Your task to perform on an android device: turn pop-ups on in chrome Image 0: 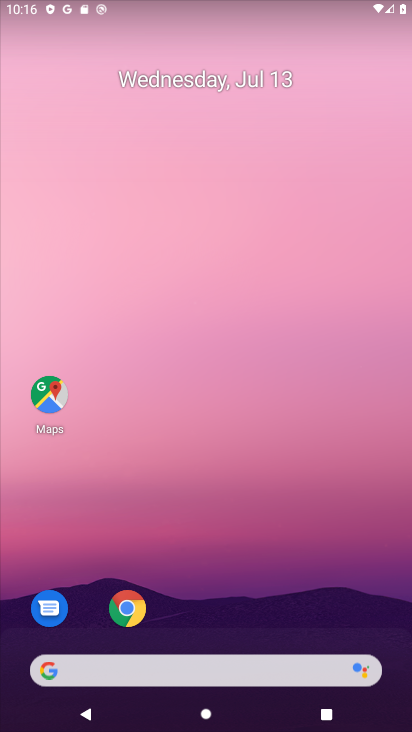
Step 0: click (129, 609)
Your task to perform on an android device: turn pop-ups on in chrome Image 1: 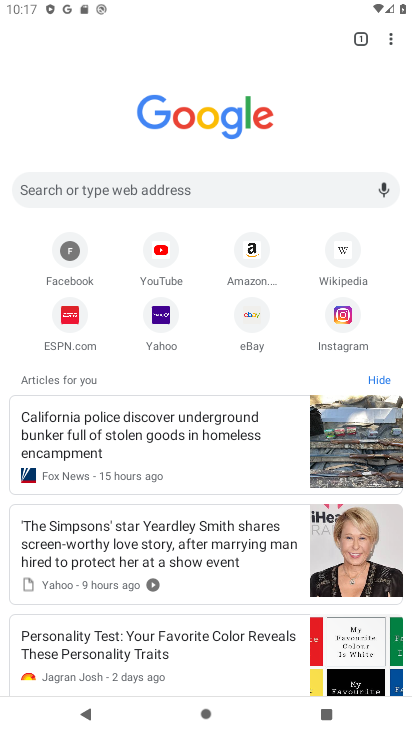
Step 1: click (390, 34)
Your task to perform on an android device: turn pop-ups on in chrome Image 2: 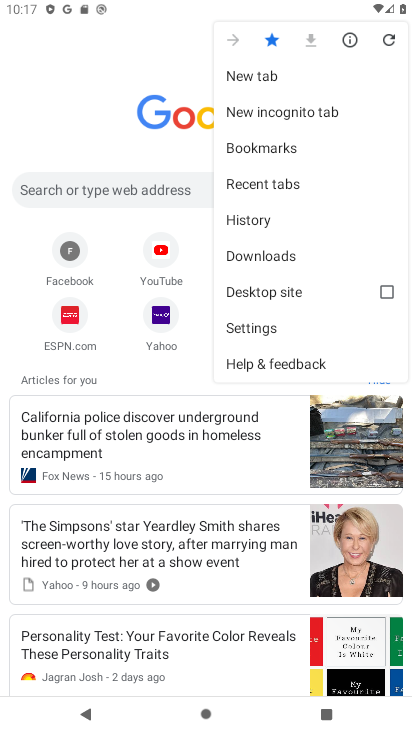
Step 2: click (257, 328)
Your task to perform on an android device: turn pop-ups on in chrome Image 3: 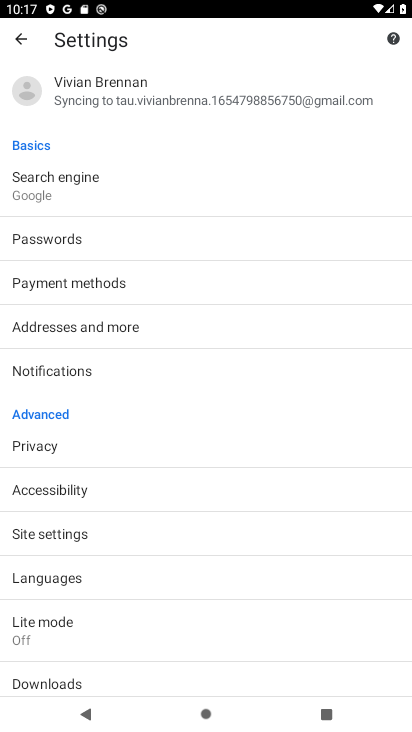
Step 3: click (115, 538)
Your task to perform on an android device: turn pop-ups on in chrome Image 4: 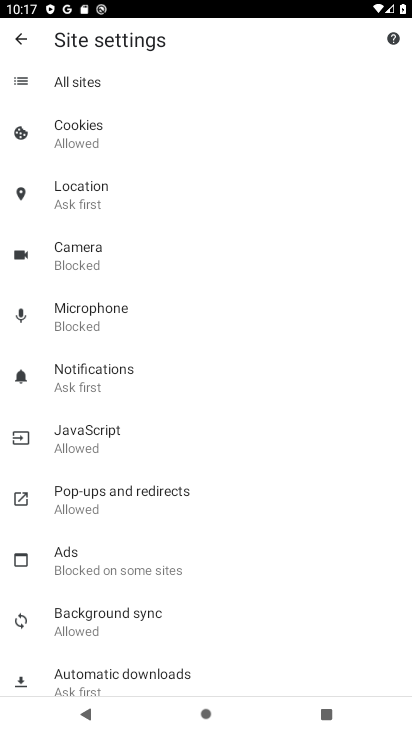
Step 4: click (138, 505)
Your task to perform on an android device: turn pop-ups on in chrome Image 5: 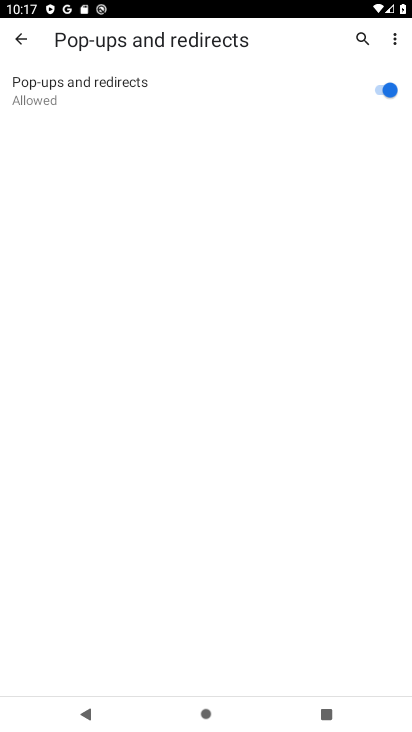
Step 5: task complete